Your task to perform on an android device: change the clock style Image 0: 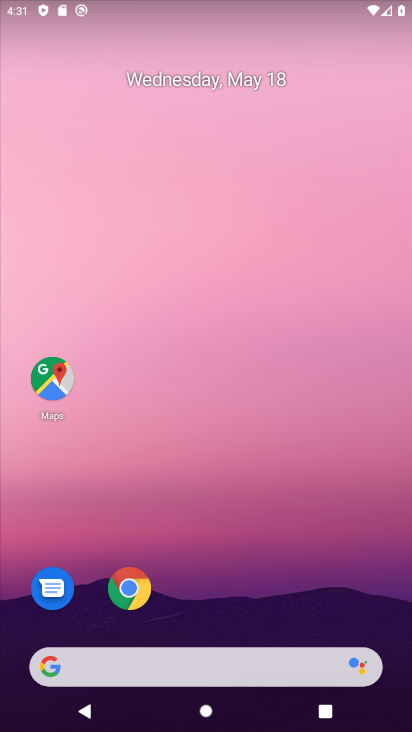
Step 0: drag from (237, 590) to (226, 98)
Your task to perform on an android device: change the clock style Image 1: 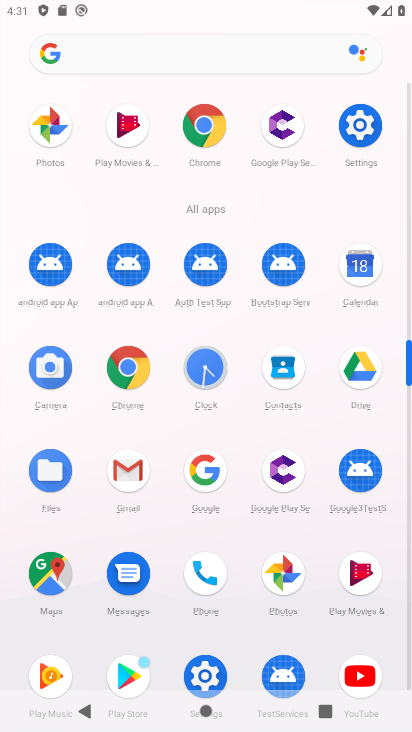
Step 1: click (205, 356)
Your task to perform on an android device: change the clock style Image 2: 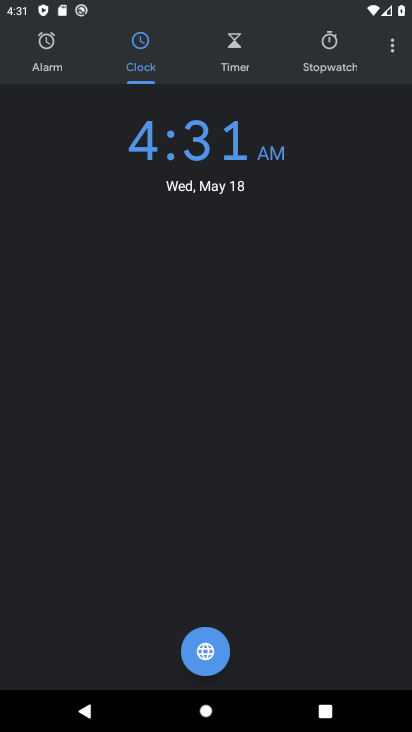
Step 2: click (390, 49)
Your task to perform on an android device: change the clock style Image 3: 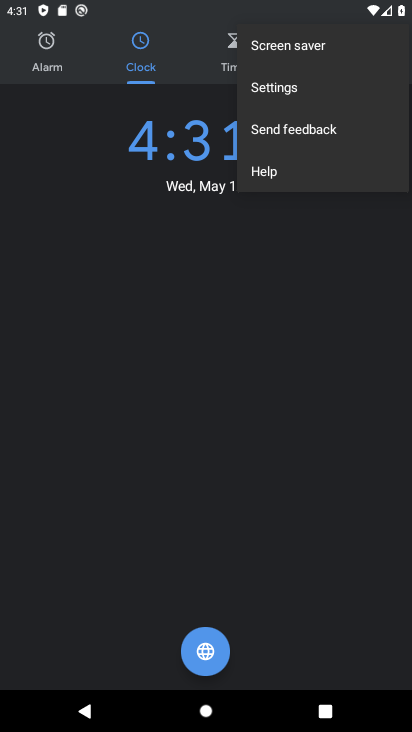
Step 3: click (267, 86)
Your task to perform on an android device: change the clock style Image 4: 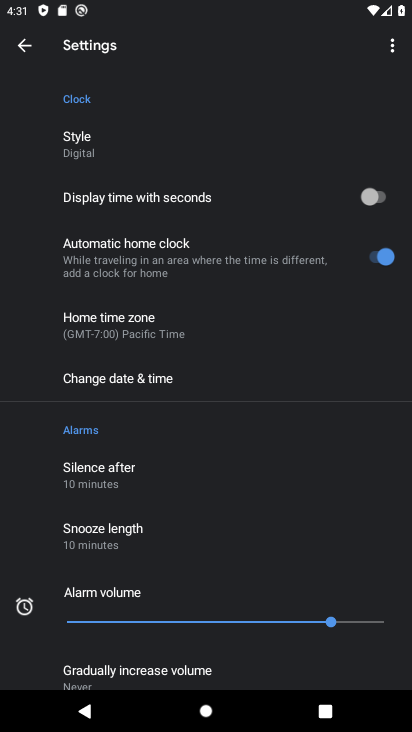
Step 4: click (109, 136)
Your task to perform on an android device: change the clock style Image 5: 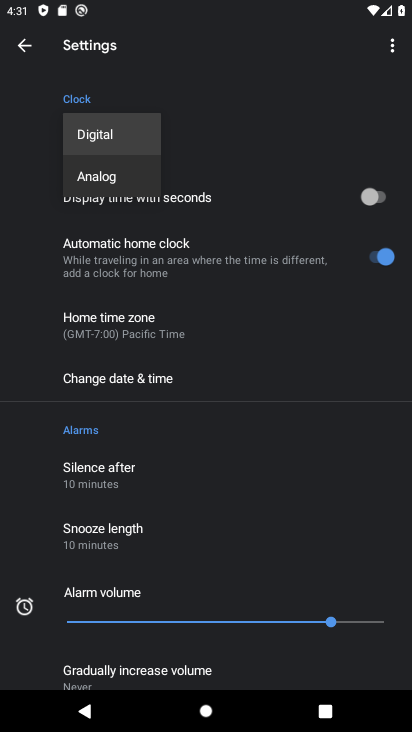
Step 5: click (131, 183)
Your task to perform on an android device: change the clock style Image 6: 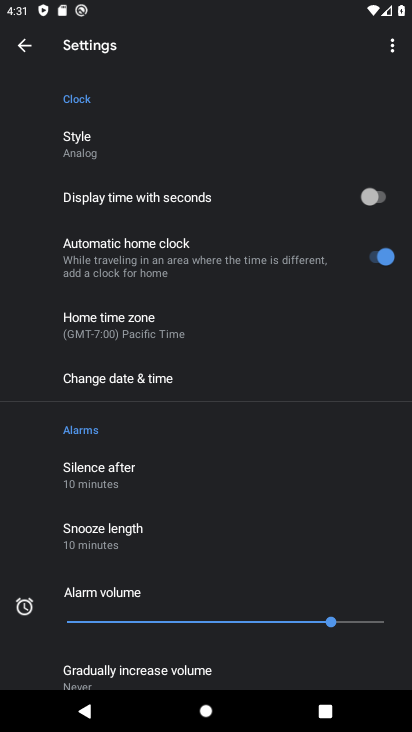
Step 6: task complete